Your task to perform on an android device: turn on bluetooth scan Image 0: 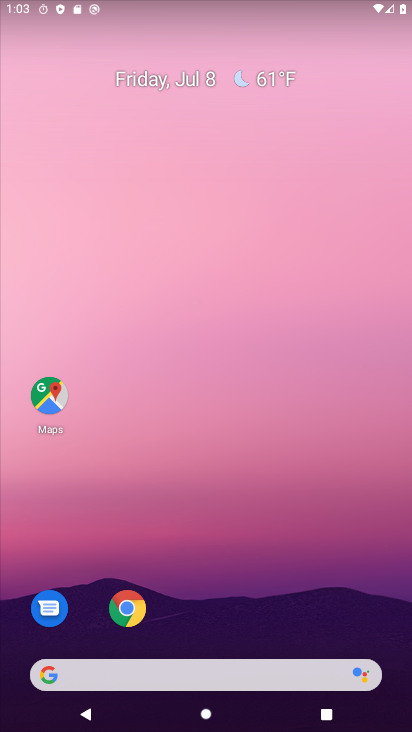
Step 0: drag from (248, 538) to (250, 158)
Your task to perform on an android device: turn on bluetooth scan Image 1: 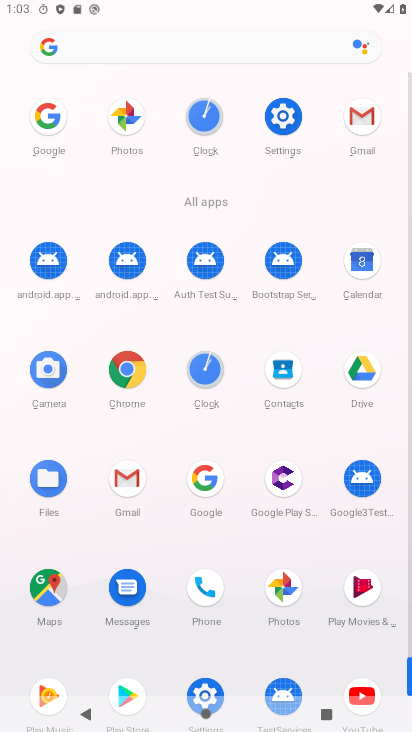
Step 1: click (285, 118)
Your task to perform on an android device: turn on bluetooth scan Image 2: 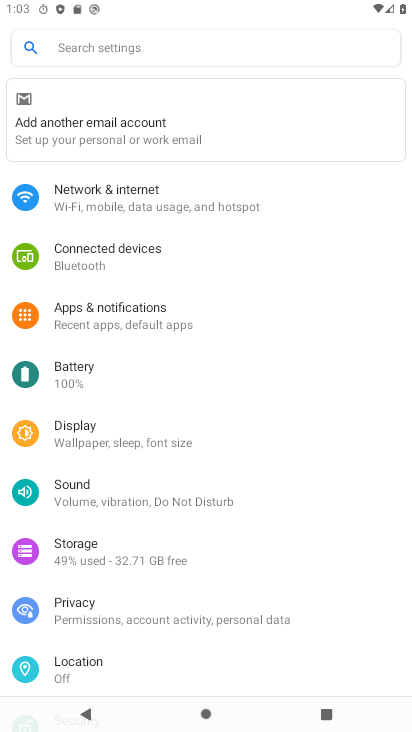
Step 2: drag from (184, 602) to (228, 374)
Your task to perform on an android device: turn on bluetooth scan Image 3: 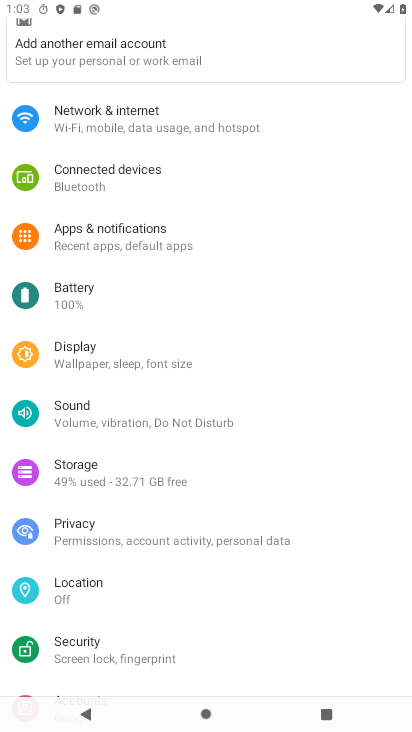
Step 3: click (103, 587)
Your task to perform on an android device: turn on bluetooth scan Image 4: 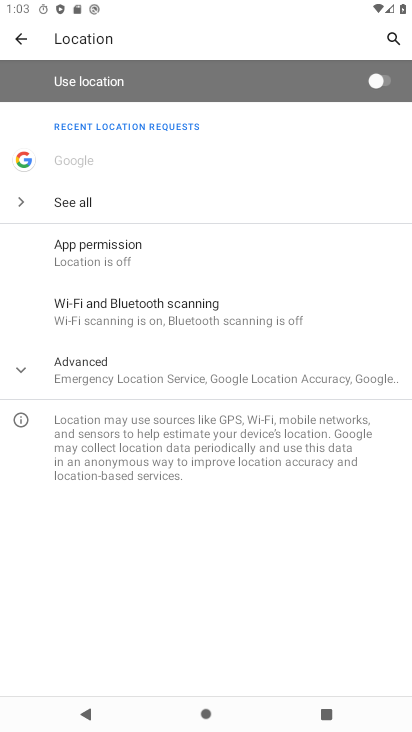
Step 4: click (132, 315)
Your task to perform on an android device: turn on bluetooth scan Image 5: 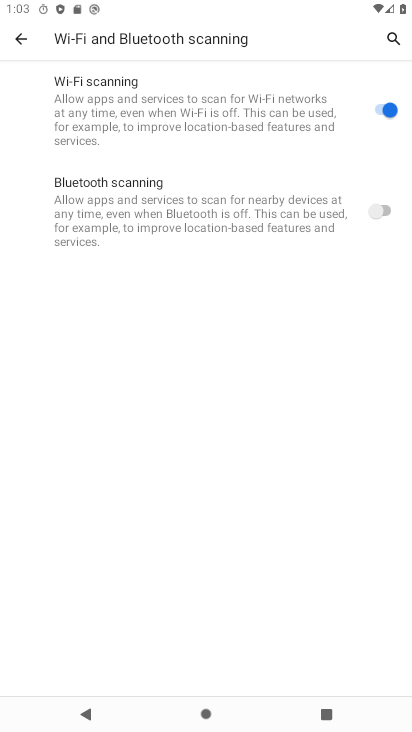
Step 5: click (376, 209)
Your task to perform on an android device: turn on bluetooth scan Image 6: 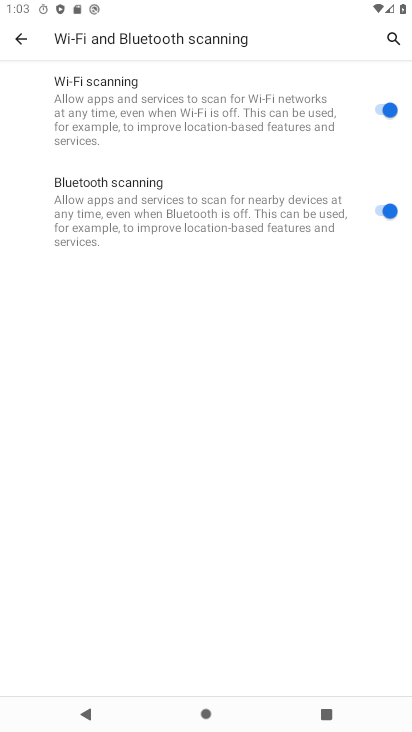
Step 6: task complete